Your task to perform on an android device: toggle notifications settings in the gmail app Image 0: 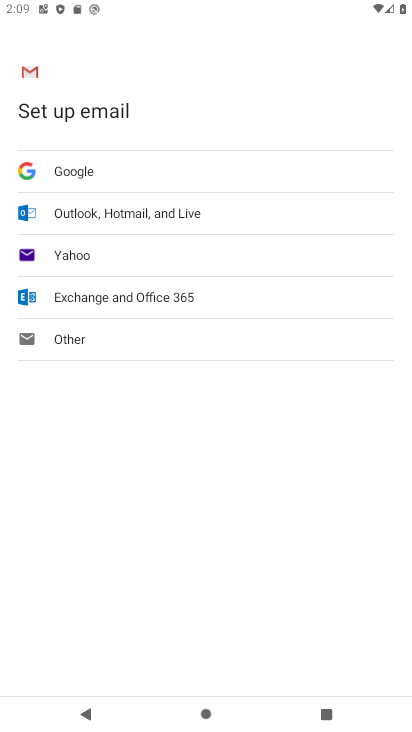
Step 0: press home button
Your task to perform on an android device: toggle notifications settings in the gmail app Image 1: 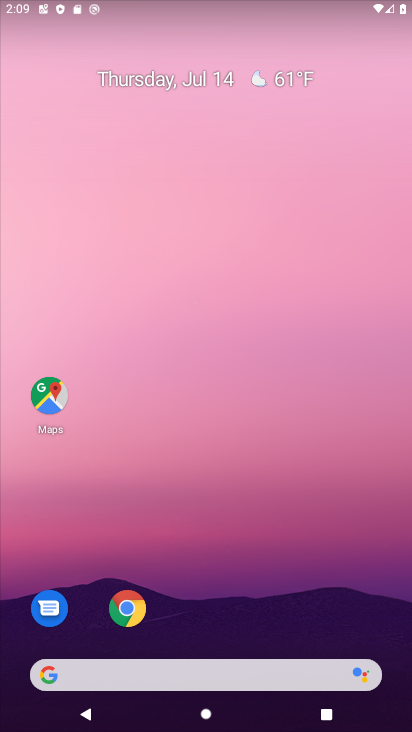
Step 1: drag from (239, 662) to (239, 340)
Your task to perform on an android device: toggle notifications settings in the gmail app Image 2: 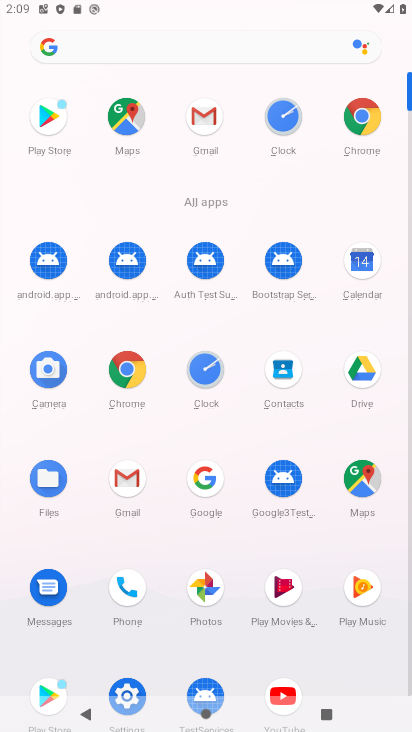
Step 2: click (131, 484)
Your task to perform on an android device: toggle notifications settings in the gmail app Image 3: 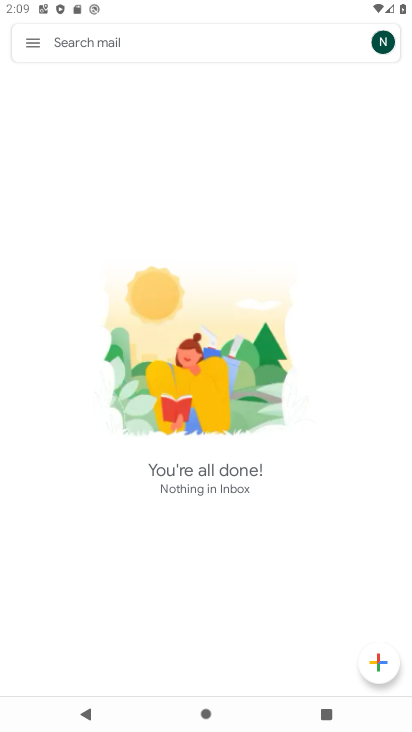
Step 3: click (39, 40)
Your task to perform on an android device: toggle notifications settings in the gmail app Image 4: 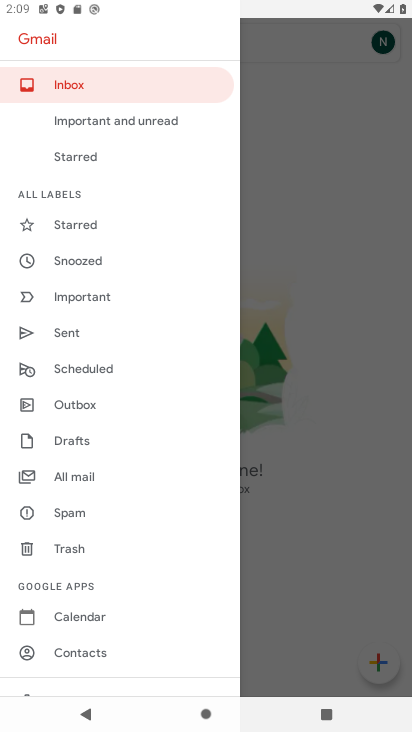
Step 4: click (107, 349)
Your task to perform on an android device: toggle notifications settings in the gmail app Image 5: 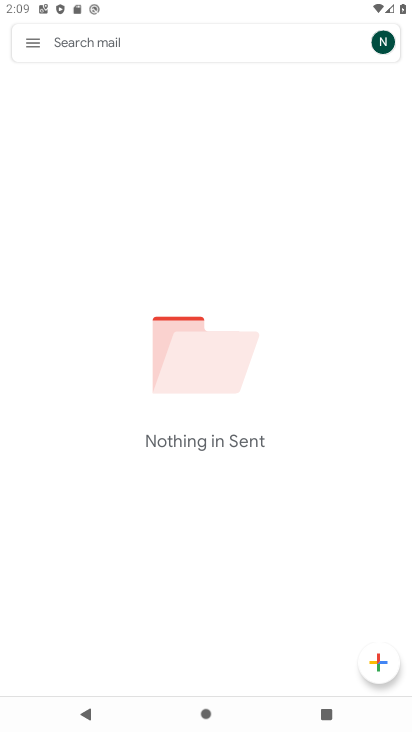
Step 5: click (31, 43)
Your task to perform on an android device: toggle notifications settings in the gmail app Image 6: 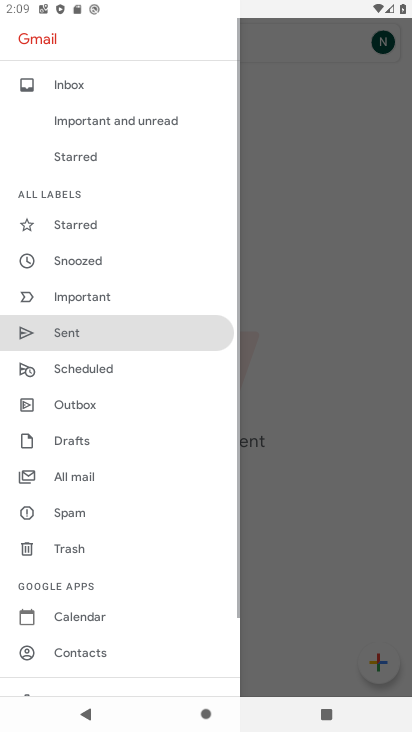
Step 6: drag from (111, 647) to (105, 180)
Your task to perform on an android device: toggle notifications settings in the gmail app Image 7: 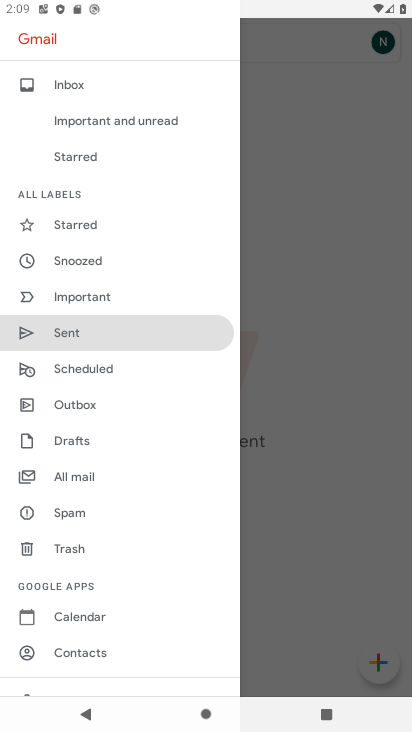
Step 7: drag from (89, 668) to (101, 208)
Your task to perform on an android device: toggle notifications settings in the gmail app Image 8: 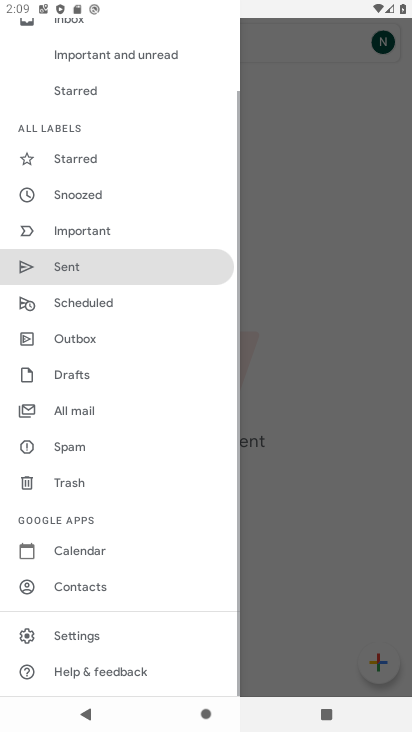
Step 8: click (83, 638)
Your task to perform on an android device: toggle notifications settings in the gmail app Image 9: 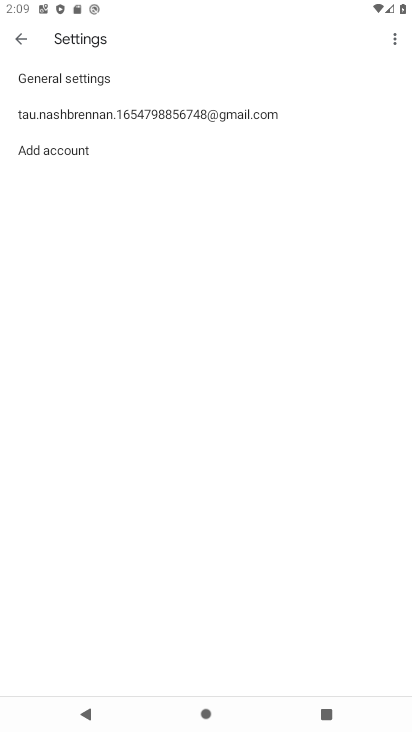
Step 9: click (159, 111)
Your task to perform on an android device: toggle notifications settings in the gmail app Image 10: 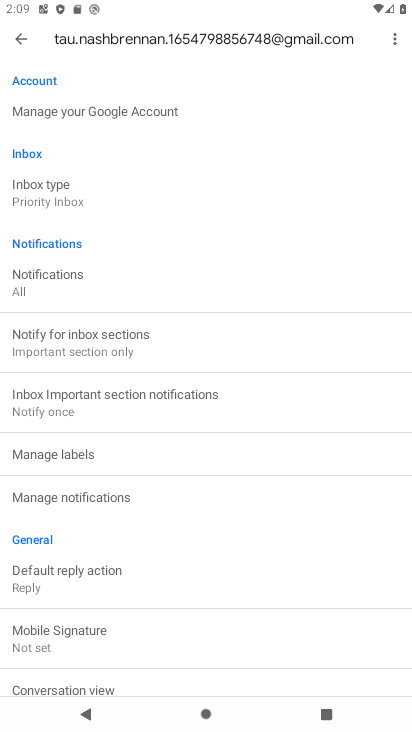
Step 10: click (53, 498)
Your task to perform on an android device: toggle notifications settings in the gmail app Image 11: 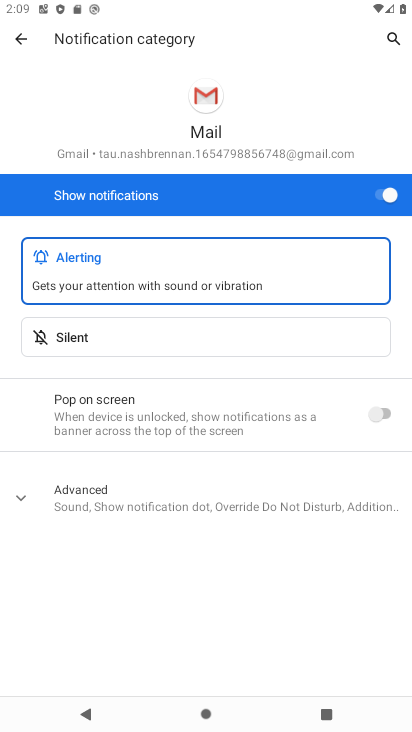
Step 11: click (380, 191)
Your task to perform on an android device: toggle notifications settings in the gmail app Image 12: 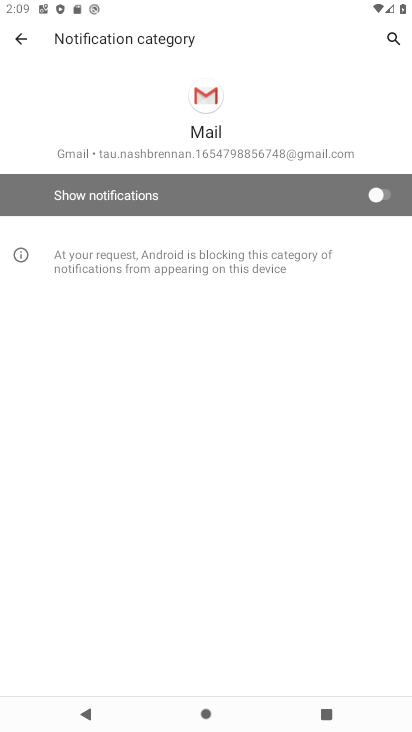
Step 12: task complete